Your task to perform on an android device: add a label to a message in the gmail app Image 0: 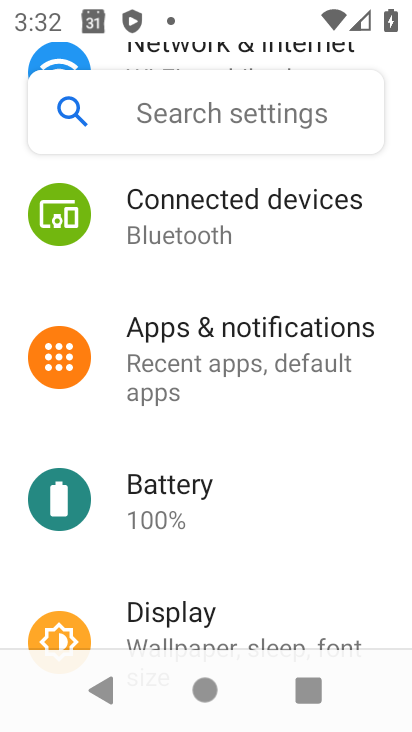
Step 0: press home button
Your task to perform on an android device: add a label to a message in the gmail app Image 1: 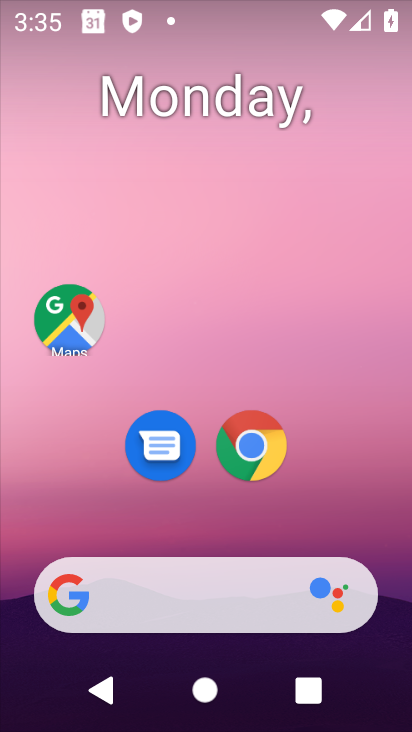
Step 1: drag from (342, 517) to (369, 0)
Your task to perform on an android device: add a label to a message in the gmail app Image 2: 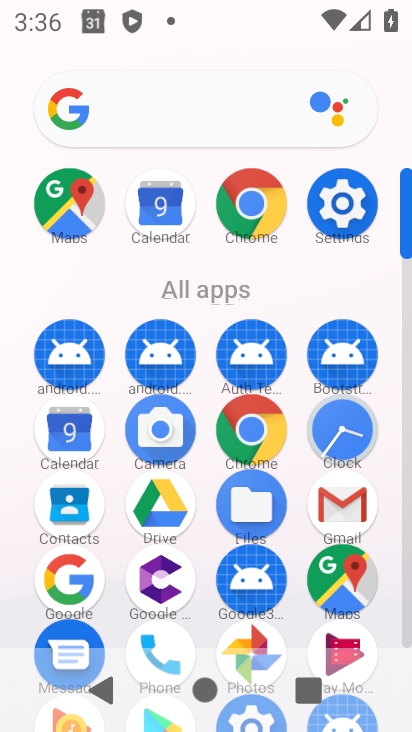
Step 2: click (337, 510)
Your task to perform on an android device: add a label to a message in the gmail app Image 3: 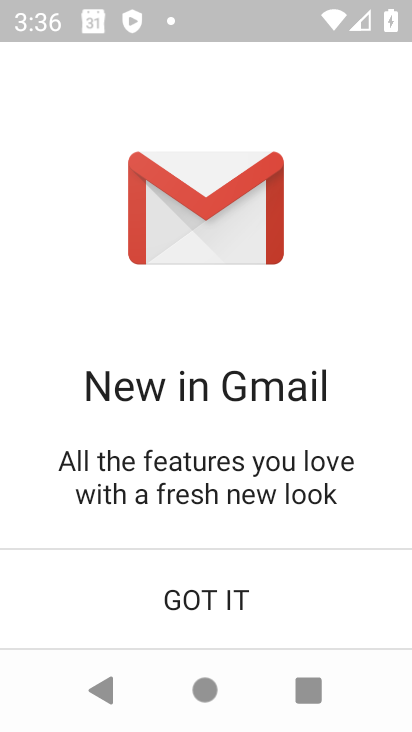
Step 3: click (283, 581)
Your task to perform on an android device: add a label to a message in the gmail app Image 4: 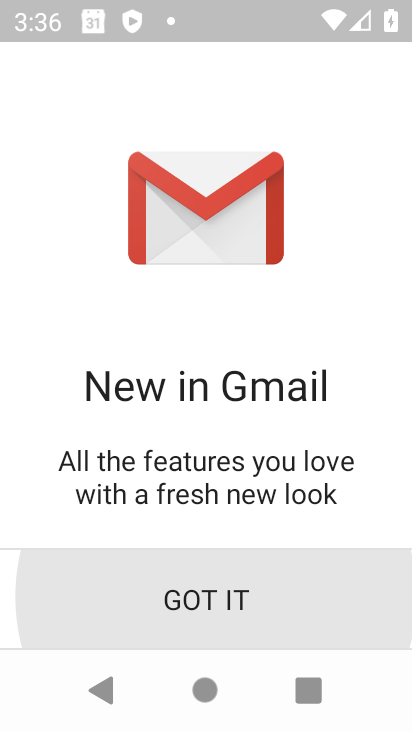
Step 4: click (283, 581)
Your task to perform on an android device: add a label to a message in the gmail app Image 5: 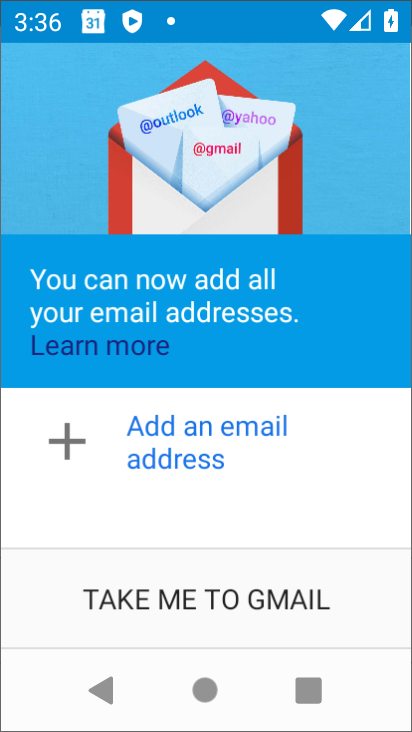
Step 5: click (283, 581)
Your task to perform on an android device: add a label to a message in the gmail app Image 6: 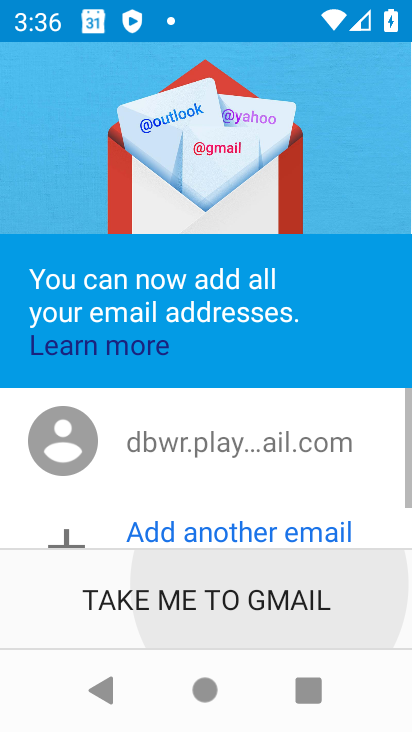
Step 6: click (283, 581)
Your task to perform on an android device: add a label to a message in the gmail app Image 7: 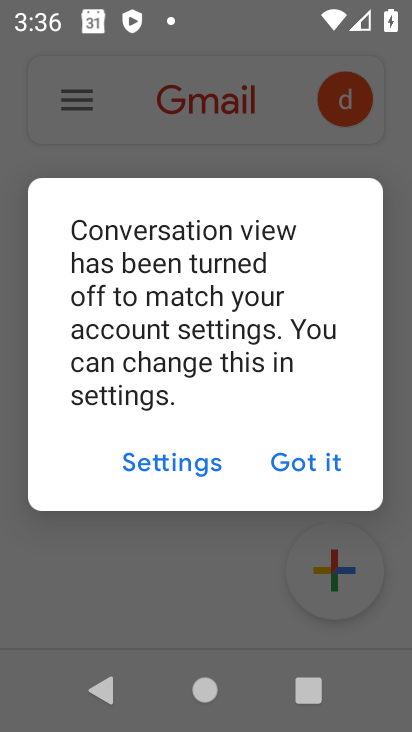
Step 7: click (296, 471)
Your task to perform on an android device: add a label to a message in the gmail app Image 8: 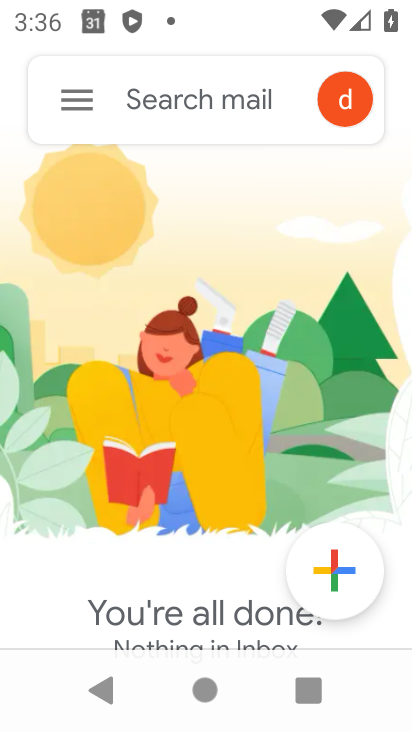
Step 8: task complete